Your task to perform on an android device: read, delete, or share a saved page in the chrome app Image 0: 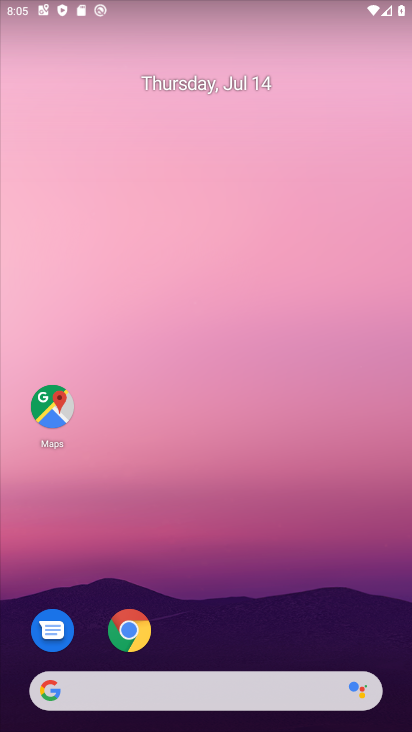
Step 0: click (121, 624)
Your task to perform on an android device: read, delete, or share a saved page in the chrome app Image 1: 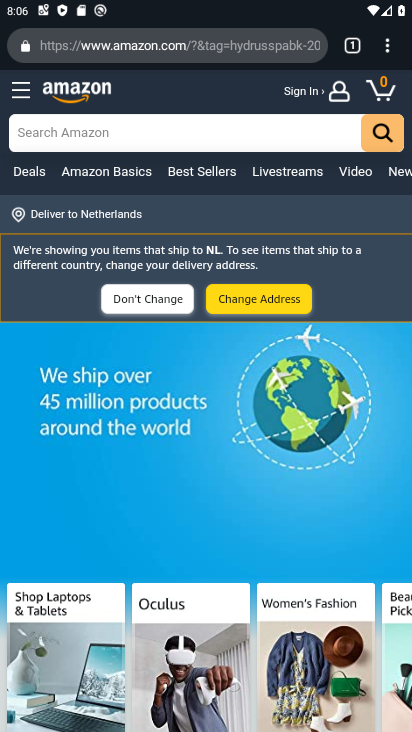
Step 1: click (381, 45)
Your task to perform on an android device: read, delete, or share a saved page in the chrome app Image 2: 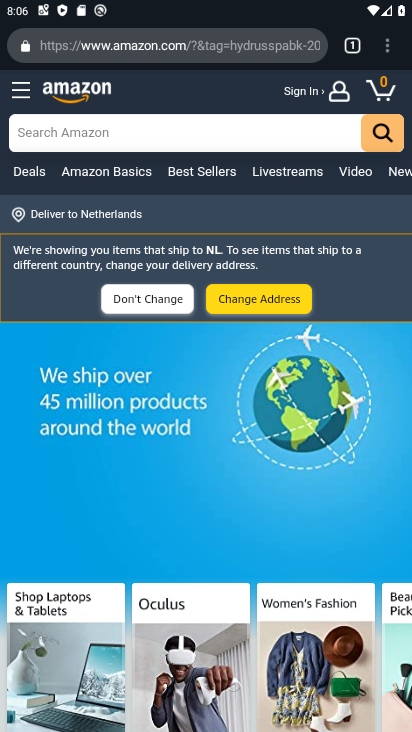
Step 2: click (381, 45)
Your task to perform on an android device: read, delete, or share a saved page in the chrome app Image 3: 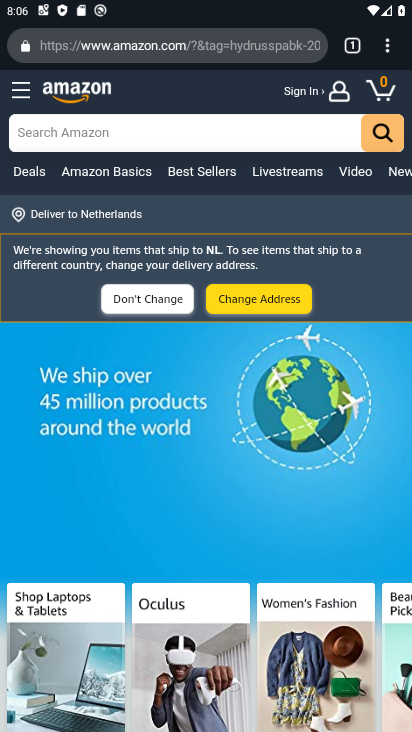
Step 3: click (390, 54)
Your task to perform on an android device: read, delete, or share a saved page in the chrome app Image 4: 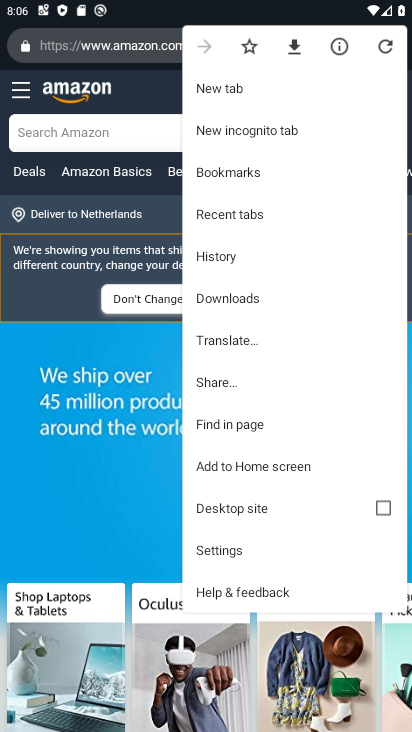
Step 4: click (261, 294)
Your task to perform on an android device: read, delete, or share a saved page in the chrome app Image 5: 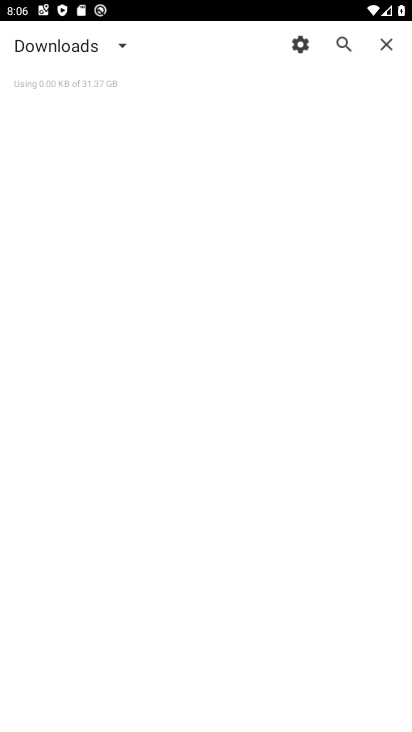
Step 5: click (110, 37)
Your task to perform on an android device: read, delete, or share a saved page in the chrome app Image 6: 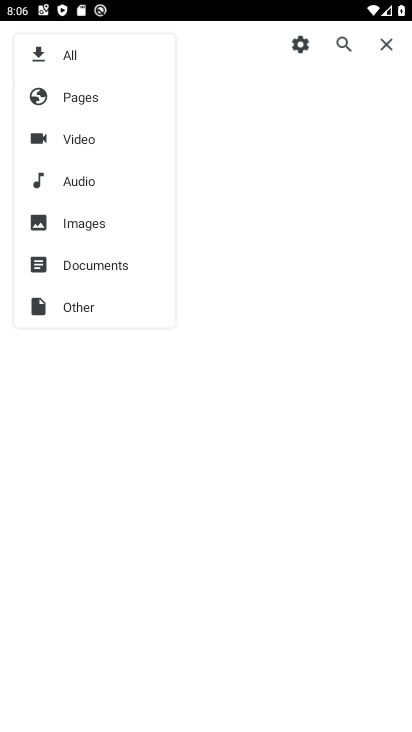
Step 6: click (106, 99)
Your task to perform on an android device: read, delete, or share a saved page in the chrome app Image 7: 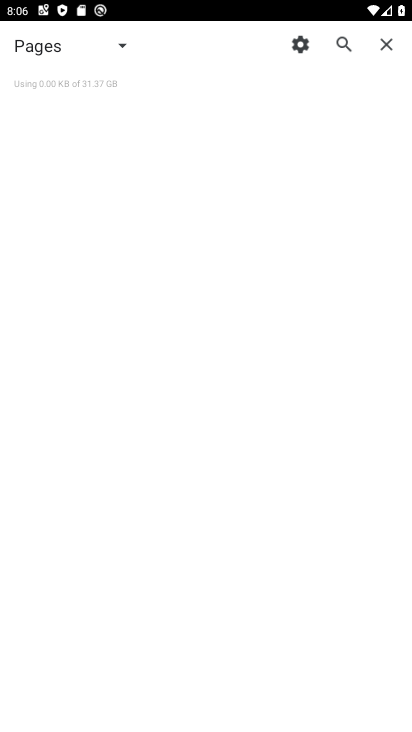
Step 7: task complete